Your task to perform on an android device: open app "ColorNote Notepad Notes" (install if not already installed), go to login, and select forgot password Image 0: 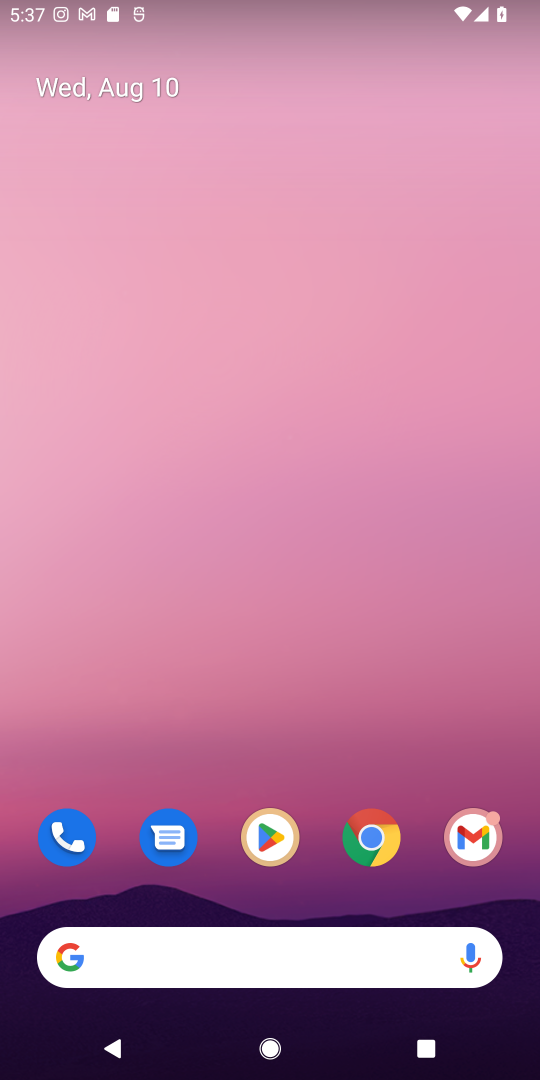
Step 0: press home button
Your task to perform on an android device: open app "ColorNote Notepad Notes" (install if not already installed), go to login, and select forgot password Image 1: 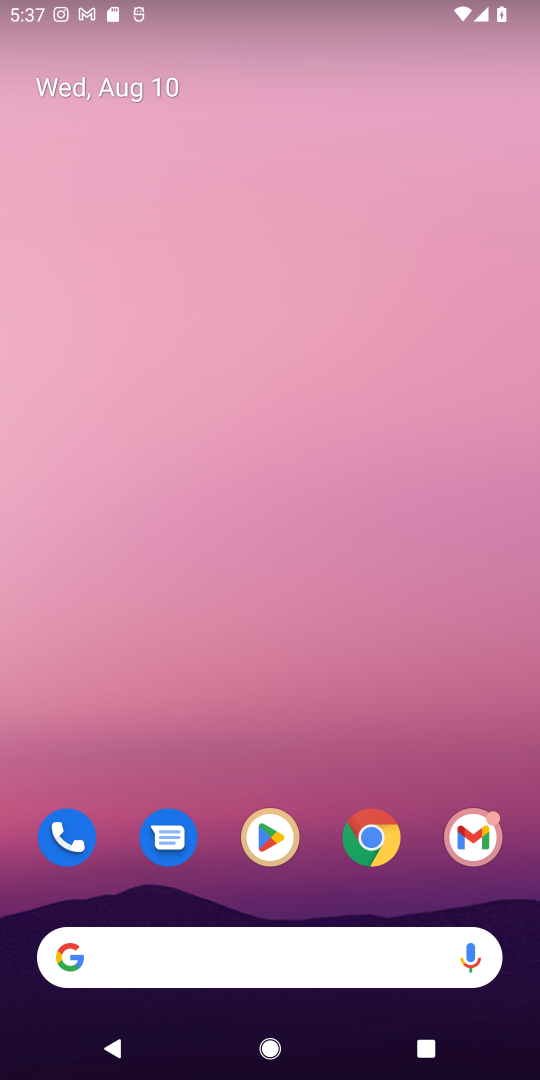
Step 1: click (266, 839)
Your task to perform on an android device: open app "ColorNote Notepad Notes" (install if not already installed), go to login, and select forgot password Image 2: 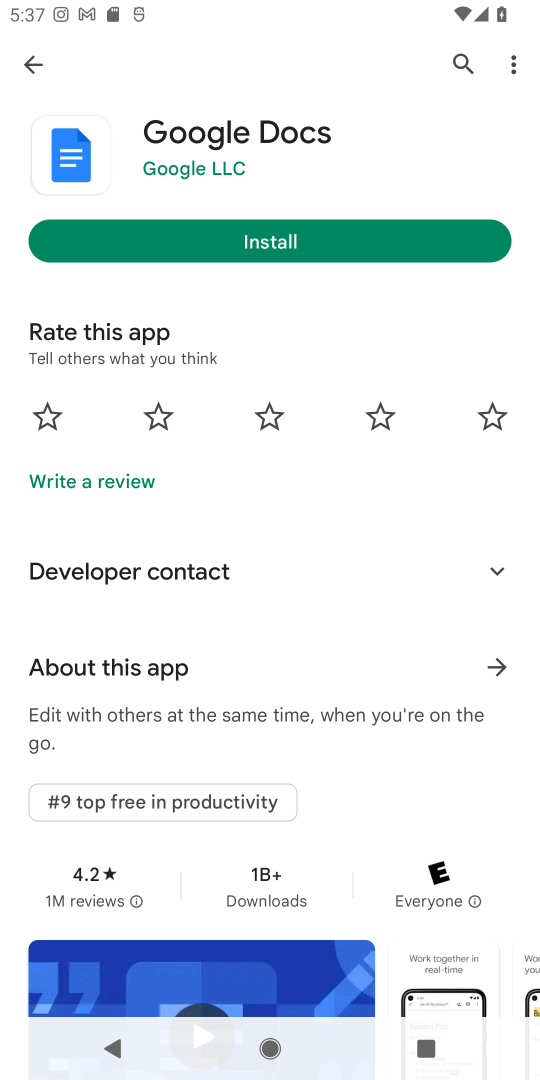
Step 2: click (454, 60)
Your task to perform on an android device: open app "ColorNote Notepad Notes" (install if not already installed), go to login, and select forgot password Image 3: 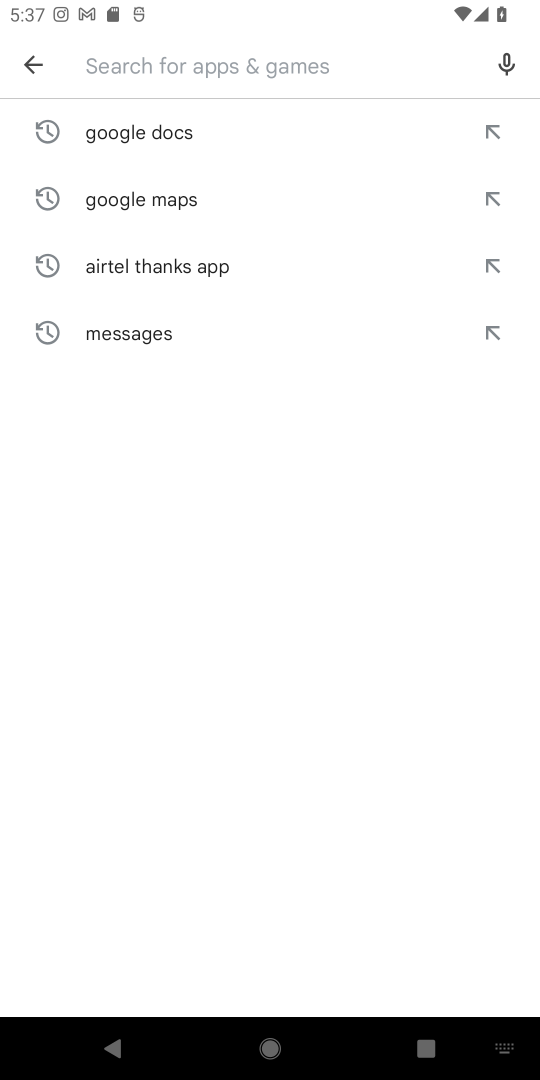
Step 3: type "ColorNote Notepad Notes"
Your task to perform on an android device: open app "ColorNote Notepad Notes" (install if not already installed), go to login, and select forgot password Image 4: 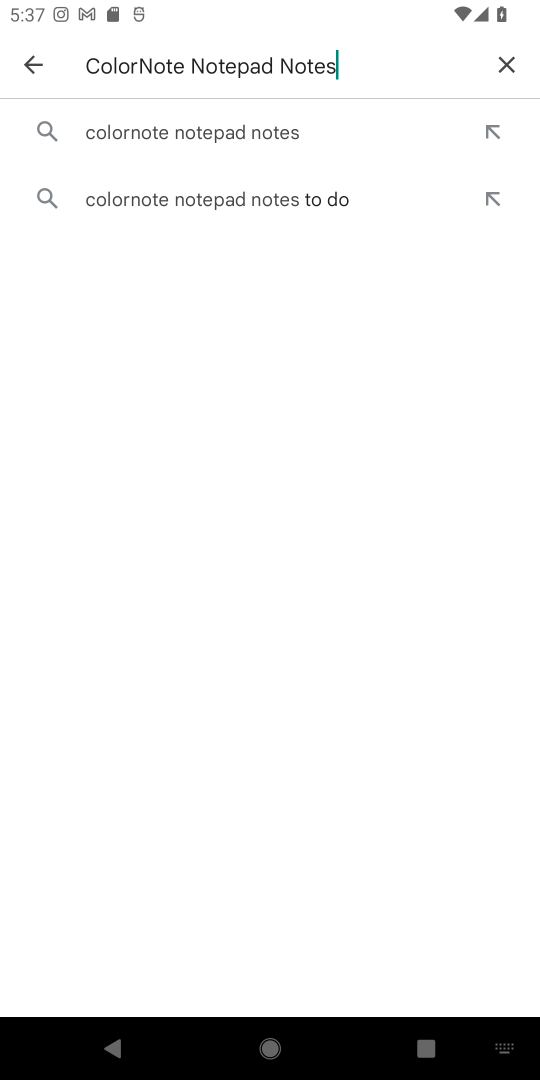
Step 4: click (245, 138)
Your task to perform on an android device: open app "ColorNote Notepad Notes" (install if not already installed), go to login, and select forgot password Image 5: 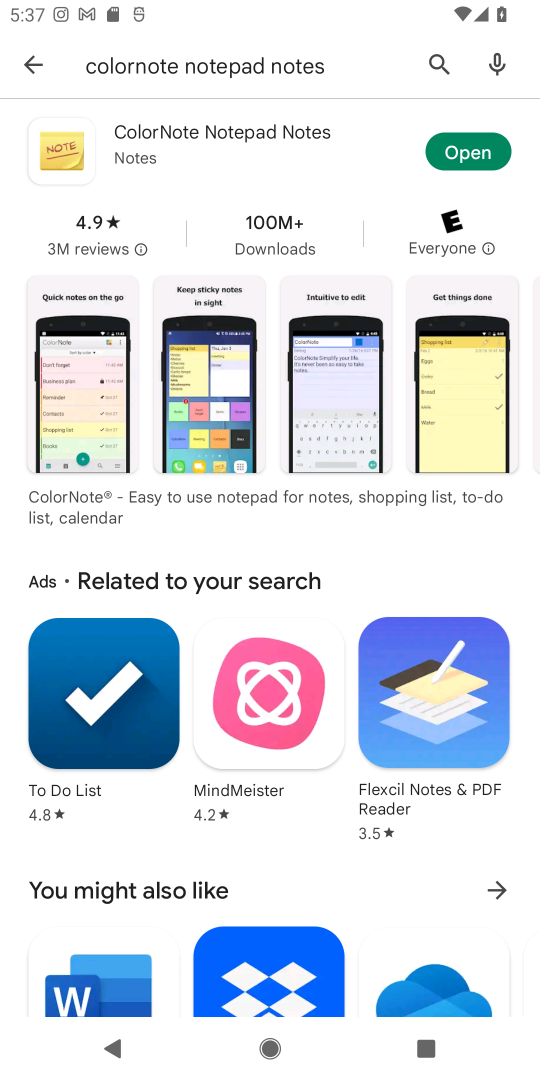
Step 5: click (477, 155)
Your task to perform on an android device: open app "ColorNote Notepad Notes" (install if not already installed), go to login, and select forgot password Image 6: 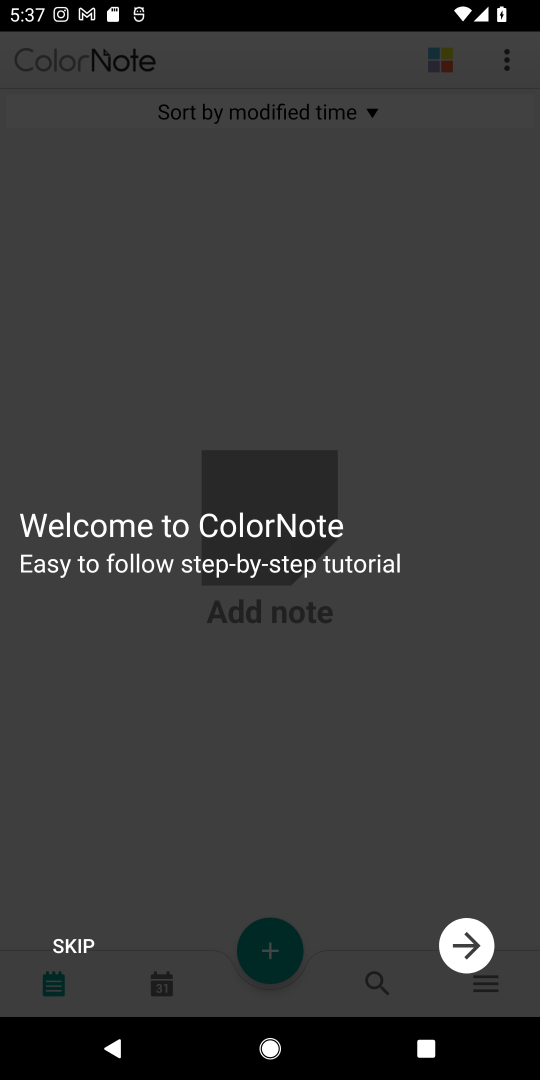
Step 6: click (459, 935)
Your task to perform on an android device: open app "ColorNote Notepad Notes" (install if not already installed), go to login, and select forgot password Image 7: 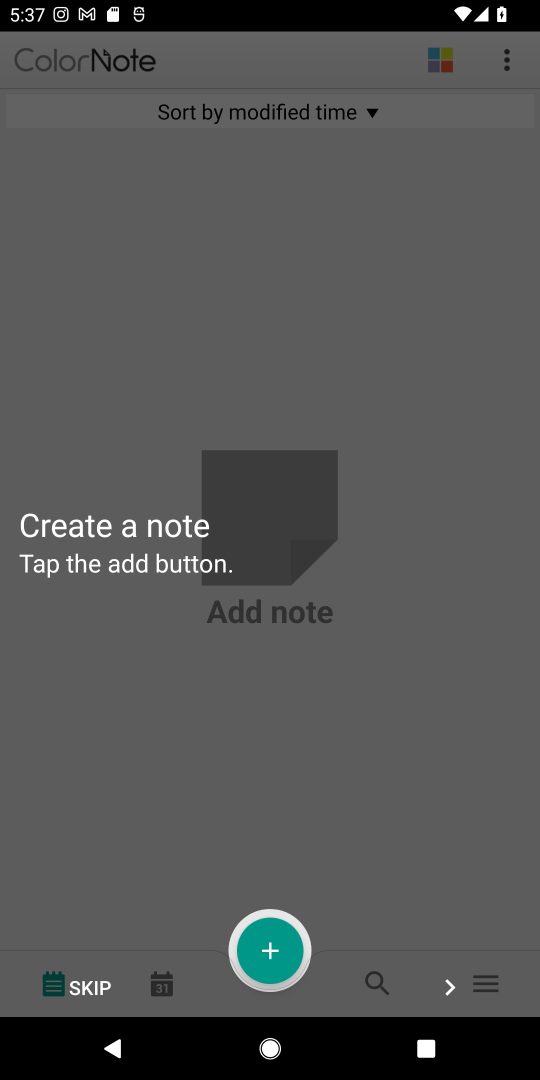
Step 7: click (445, 989)
Your task to perform on an android device: open app "ColorNote Notepad Notes" (install if not already installed), go to login, and select forgot password Image 8: 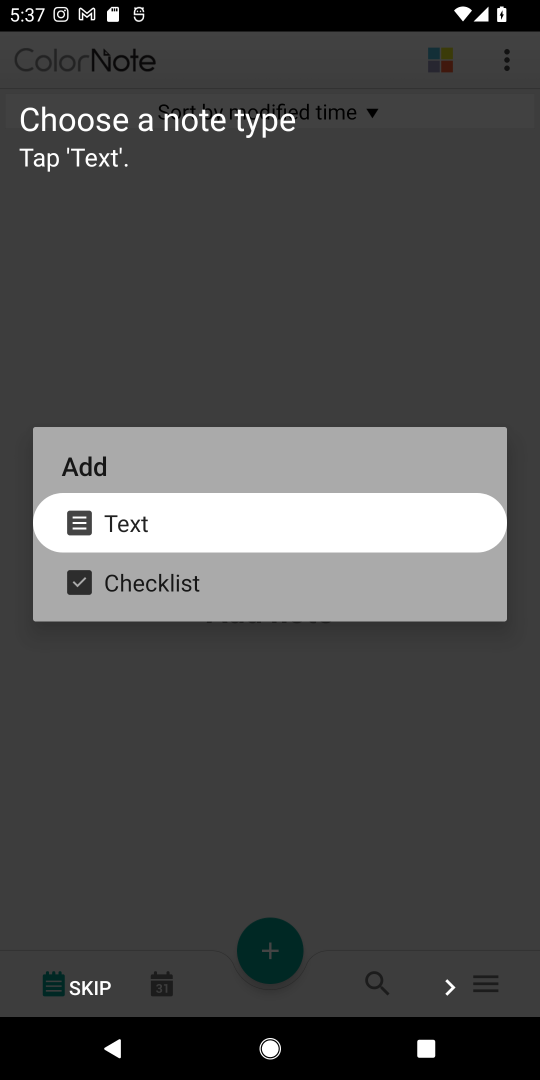
Step 8: click (446, 982)
Your task to perform on an android device: open app "ColorNote Notepad Notes" (install if not already installed), go to login, and select forgot password Image 9: 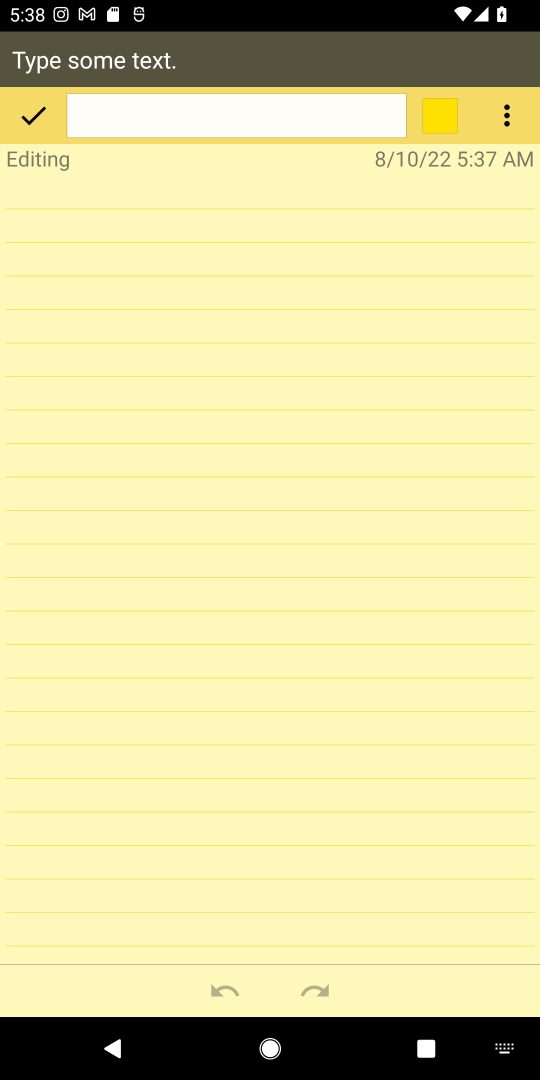
Step 9: task complete